Your task to perform on an android device: Open Amazon Image 0: 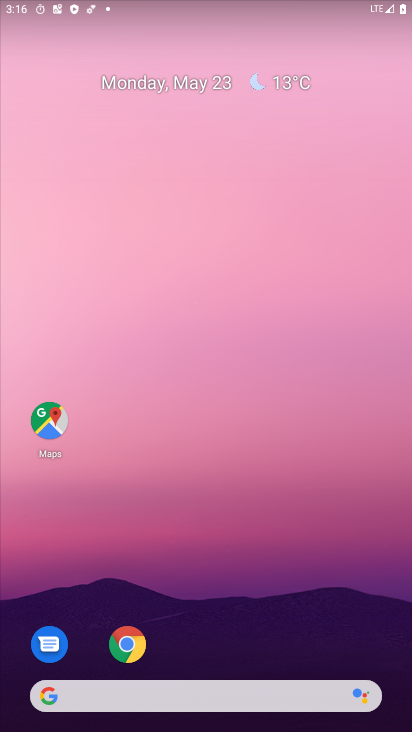
Step 0: click (115, 647)
Your task to perform on an android device: Open Amazon Image 1: 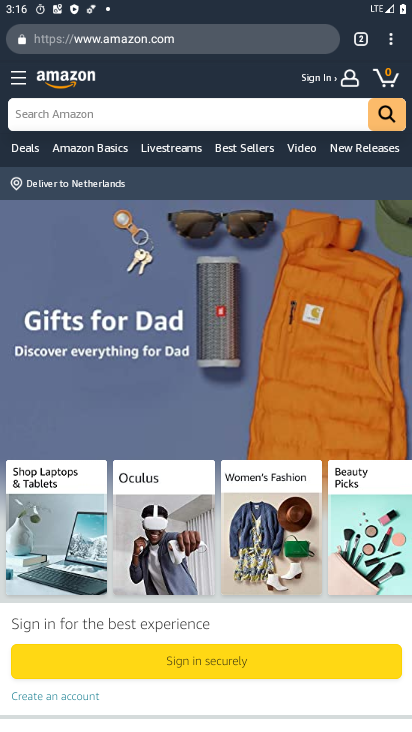
Step 1: task complete